Your task to perform on an android device: turn on bluetooth scan Image 0: 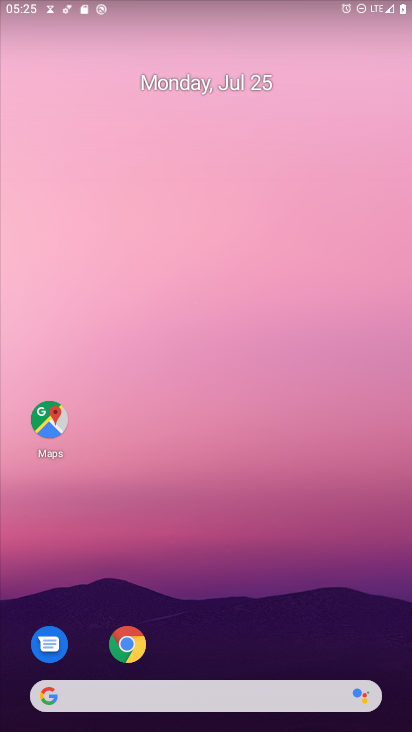
Step 0: press home button
Your task to perform on an android device: turn on bluetooth scan Image 1: 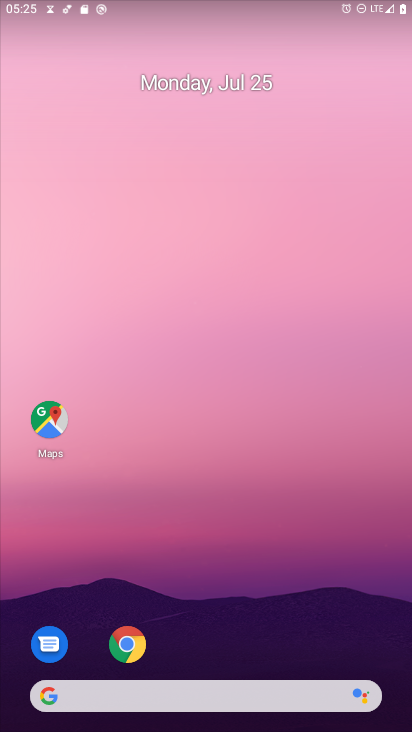
Step 1: drag from (301, 590) to (231, 141)
Your task to perform on an android device: turn on bluetooth scan Image 2: 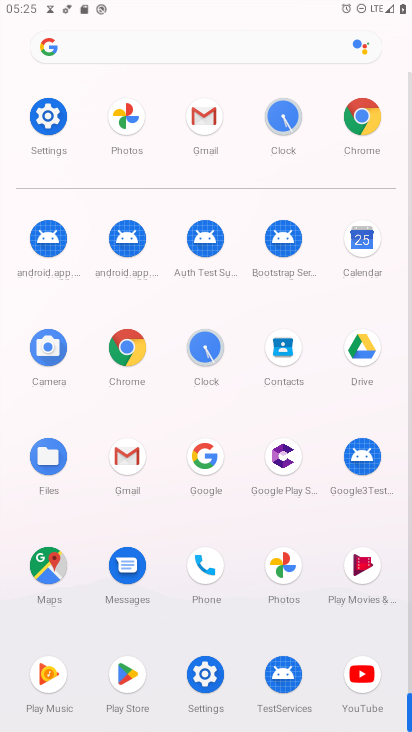
Step 2: click (46, 117)
Your task to perform on an android device: turn on bluetooth scan Image 3: 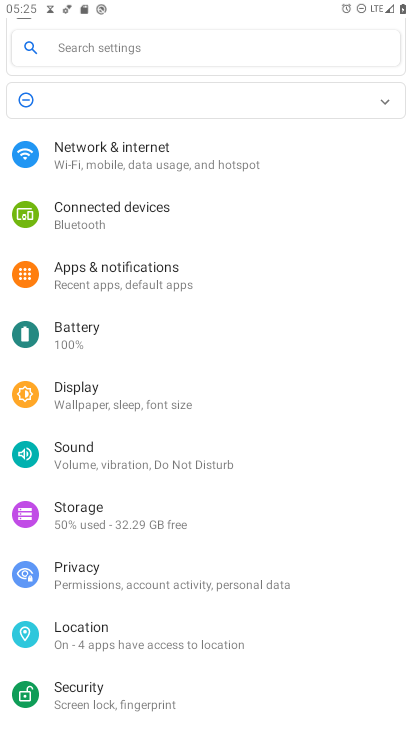
Step 3: click (122, 633)
Your task to perform on an android device: turn on bluetooth scan Image 4: 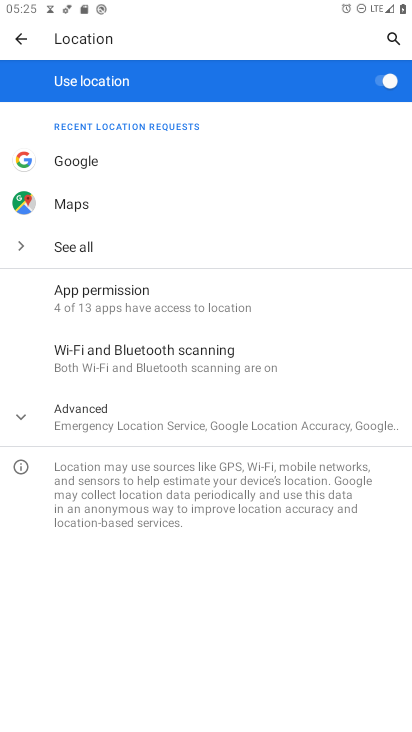
Step 4: click (121, 370)
Your task to perform on an android device: turn on bluetooth scan Image 5: 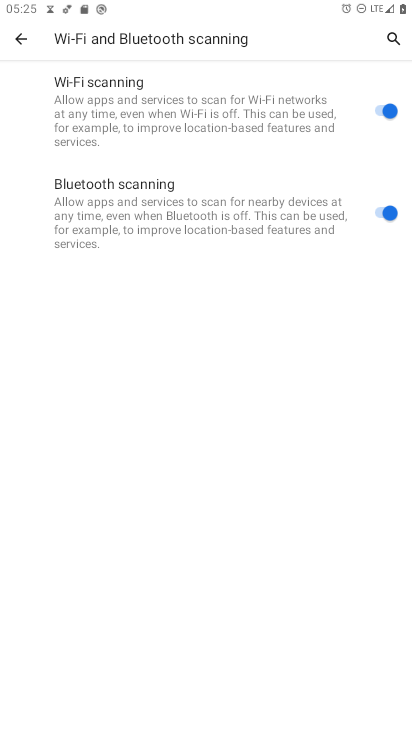
Step 5: task complete